Your task to perform on an android device: Open Maps and search for coffee Image 0: 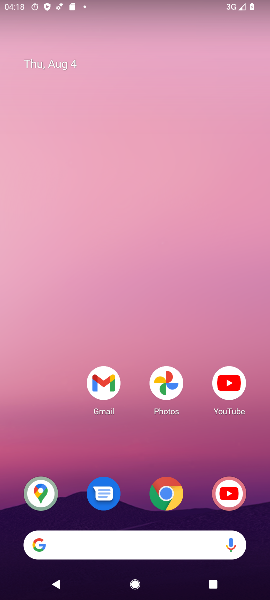
Step 0: click (56, 498)
Your task to perform on an android device: Open Maps and search for coffee Image 1: 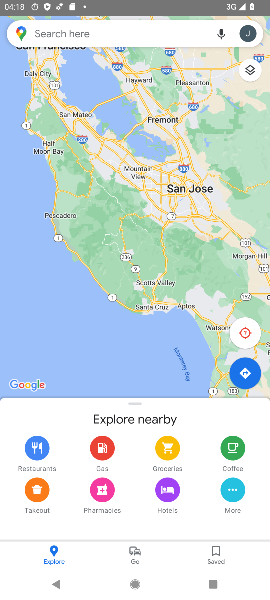
Step 1: click (72, 33)
Your task to perform on an android device: Open Maps and search for coffee Image 2: 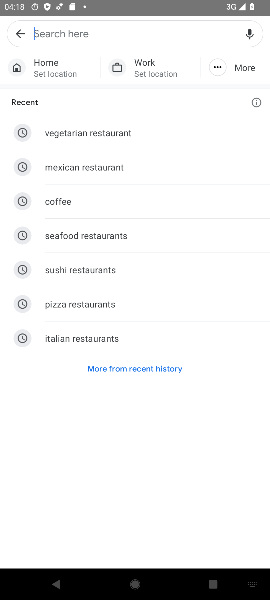
Step 2: click (52, 203)
Your task to perform on an android device: Open Maps and search for coffee Image 3: 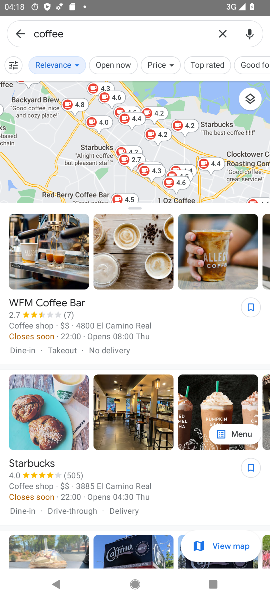
Step 3: task complete